Your task to perform on an android device: Search for Italian restaurants on Maps Image 0: 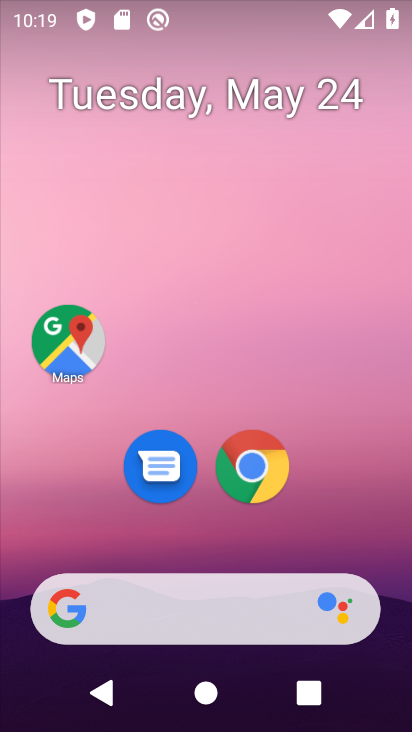
Step 0: drag from (388, 564) to (371, 254)
Your task to perform on an android device: Search for Italian restaurants on Maps Image 1: 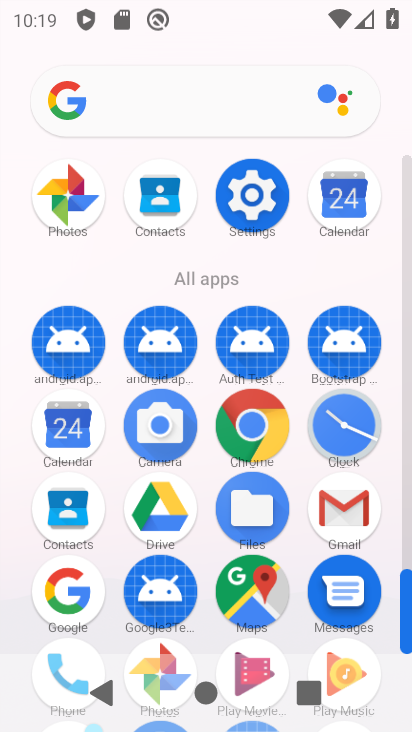
Step 1: click (266, 601)
Your task to perform on an android device: Search for Italian restaurants on Maps Image 2: 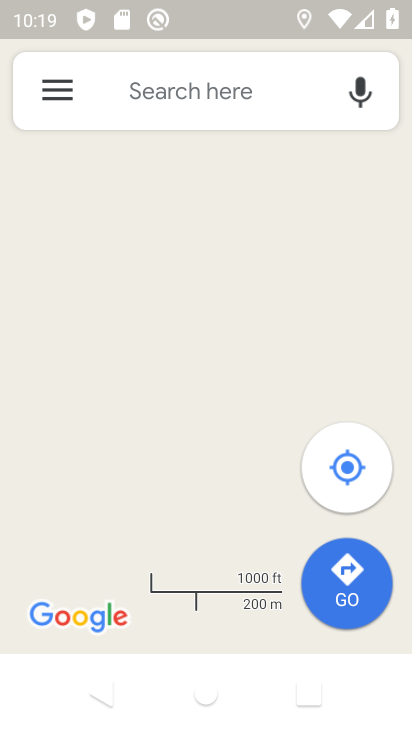
Step 2: click (232, 94)
Your task to perform on an android device: Search for Italian restaurants on Maps Image 3: 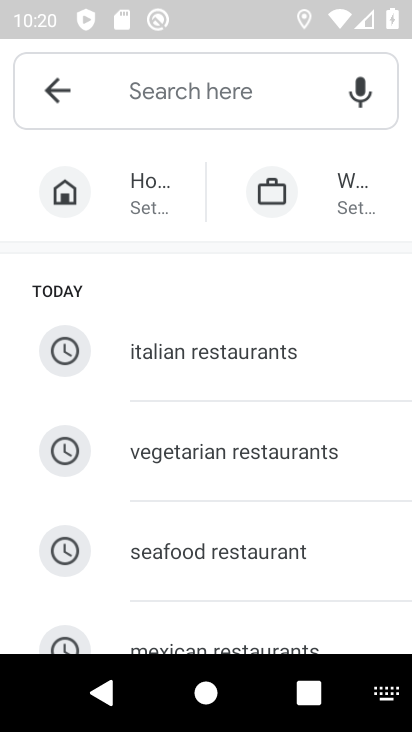
Step 3: type "italian restaurants"
Your task to perform on an android device: Search for Italian restaurants on Maps Image 4: 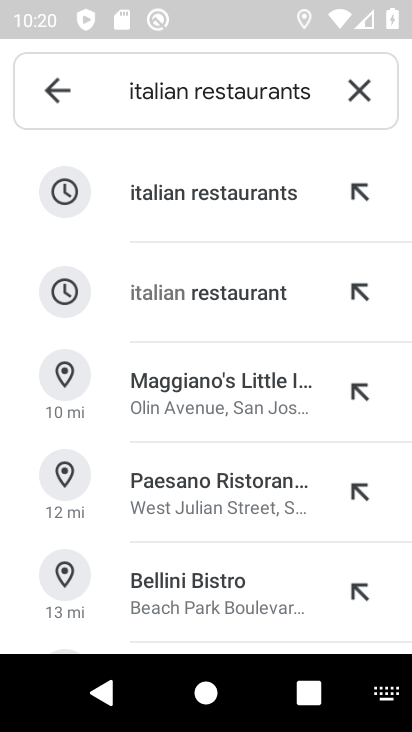
Step 4: click (267, 203)
Your task to perform on an android device: Search for Italian restaurants on Maps Image 5: 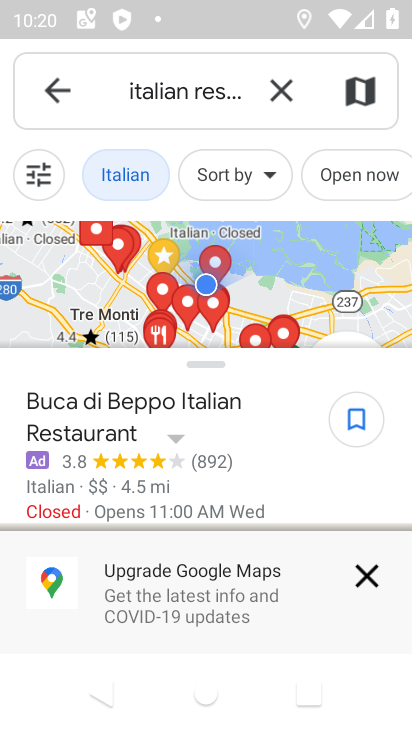
Step 5: task complete